Your task to perform on an android device: toggle sleep mode Image 0: 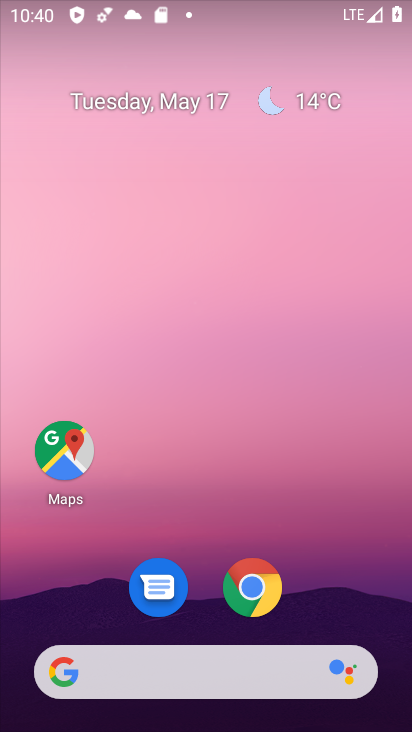
Step 0: drag from (325, 529) to (259, 54)
Your task to perform on an android device: toggle sleep mode Image 1: 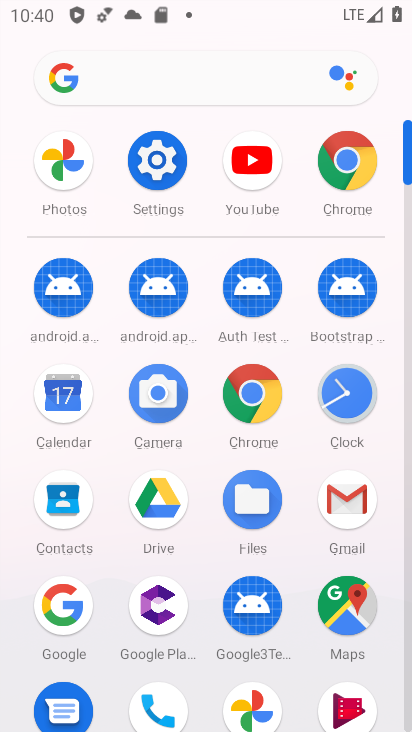
Step 1: click (172, 167)
Your task to perform on an android device: toggle sleep mode Image 2: 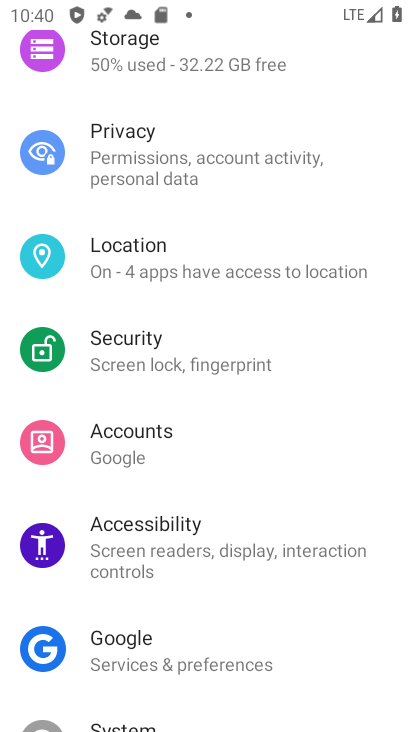
Step 2: drag from (234, 205) to (283, 624)
Your task to perform on an android device: toggle sleep mode Image 3: 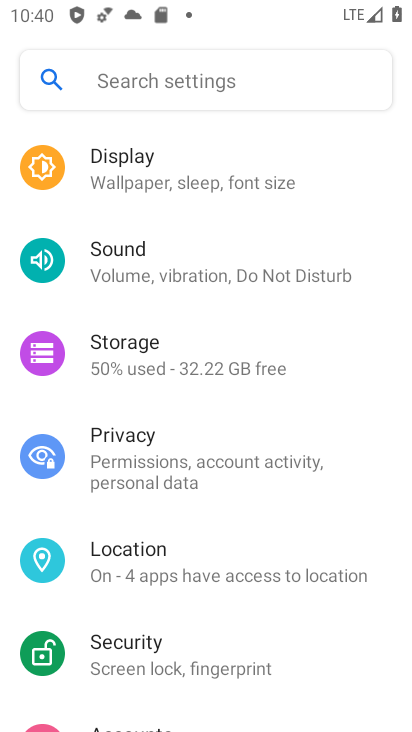
Step 3: click (246, 186)
Your task to perform on an android device: toggle sleep mode Image 4: 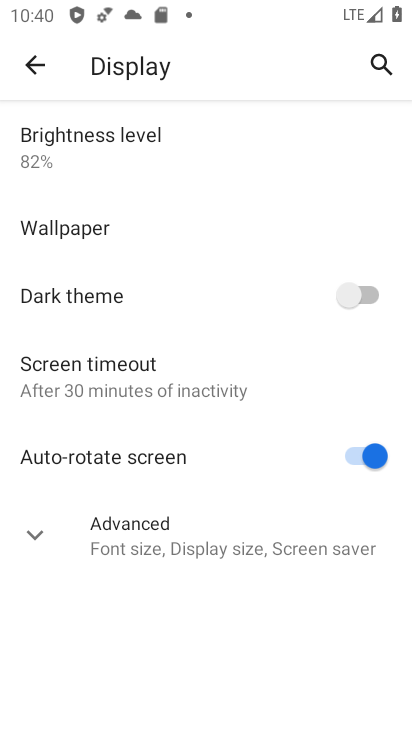
Step 4: click (205, 539)
Your task to perform on an android device: toggle sleep mode Image 5: 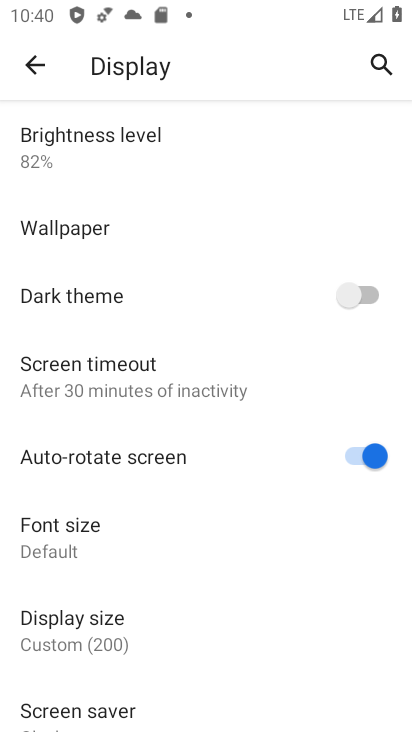
Step 5: task complete